Your task to perform on an android device: check storage Image 0: 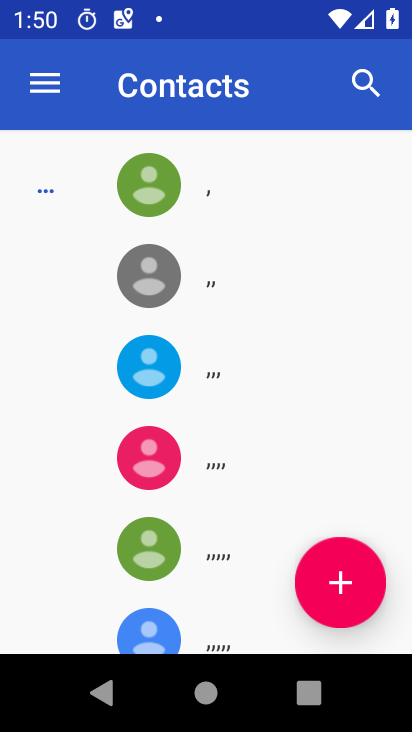
Step 0: press home button
Your task to perform on an android device: check storage Image 1: 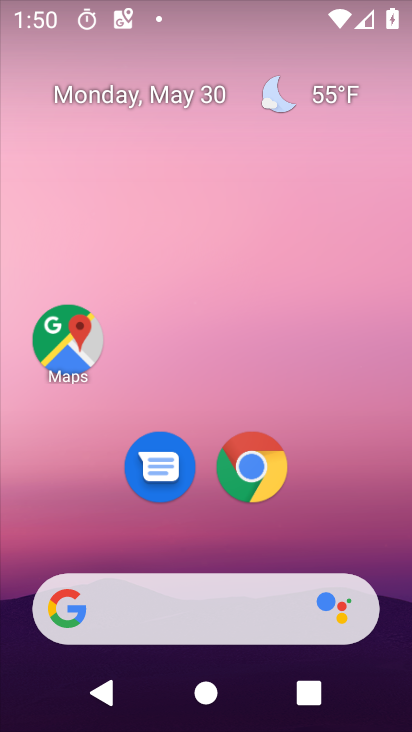
Step 1: drag from (396, 568) to (394, 179)
Your task to perform on an android device: check storage Image 2: 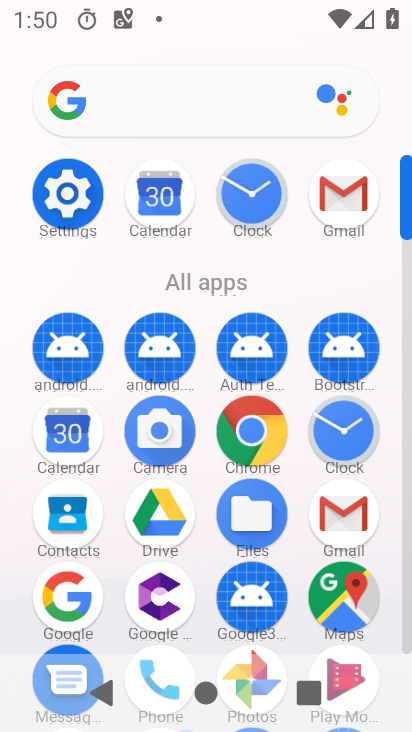
Step 2: click (91, 192)
Your task to perform on an android device: check storage Image 3: 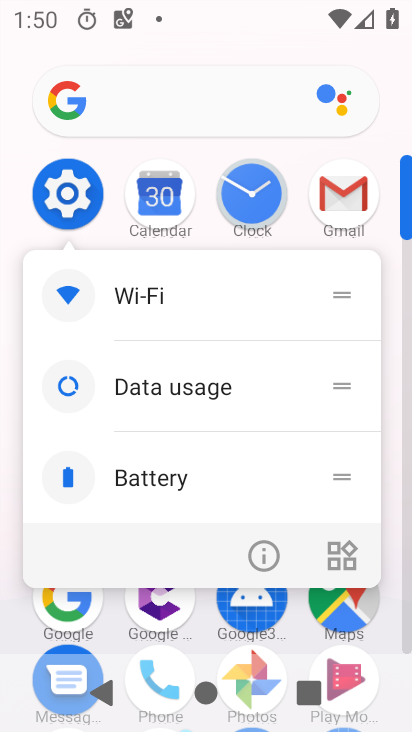
Step 3: click (72, 188)
Your task to perform on an android device: check storage Image 4: 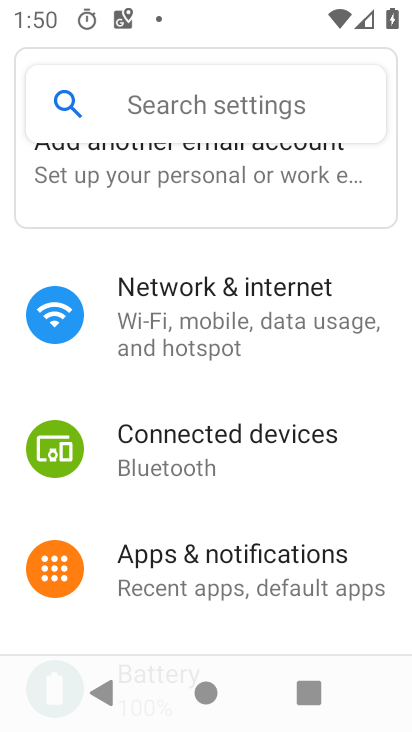
Step 4: drag from (247, 581) to (258, 268)
Your task to perform on an android device: check storage Image 5: 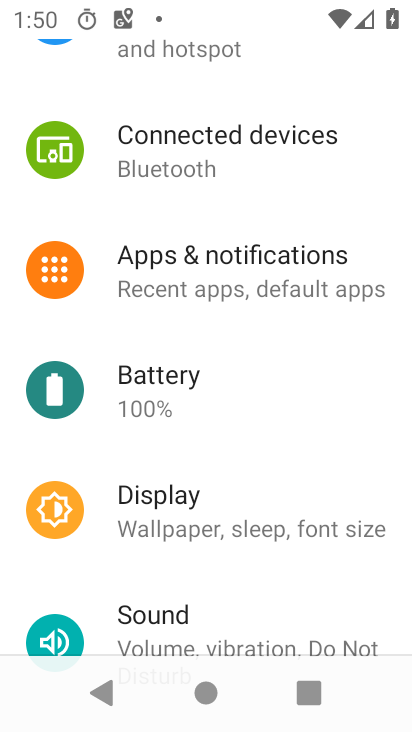
Step 5: drag from (216, 563) to (243, 207)
Your task to perform on an android device: check storage Image 6: 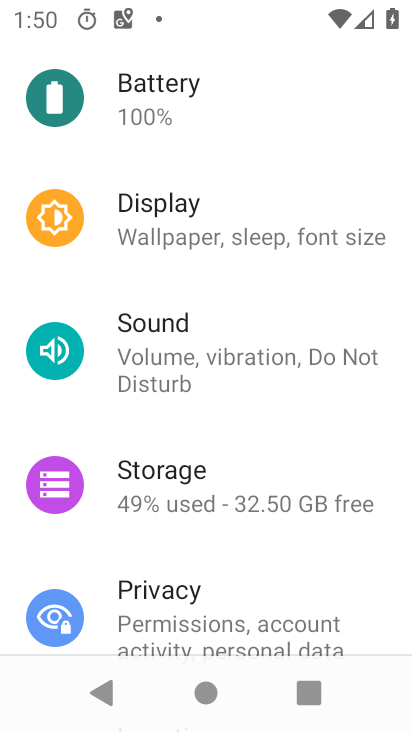
Step 6: click (143, 486)
Your task to perform on an android device: check storage Image 7: 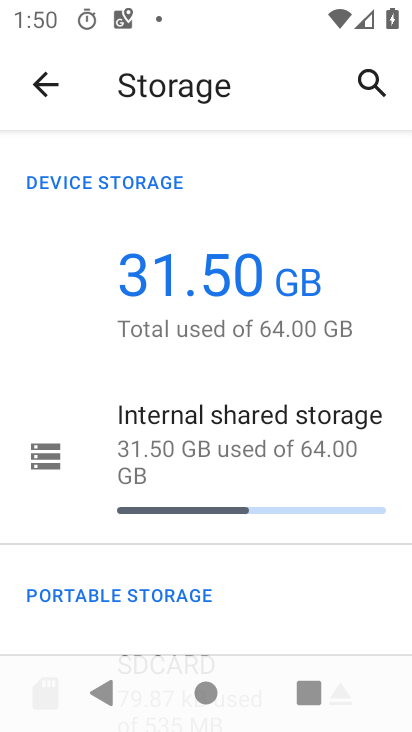
Step 7: task complete